Your task to perform on an android device: change the clock display to analog Image 0: 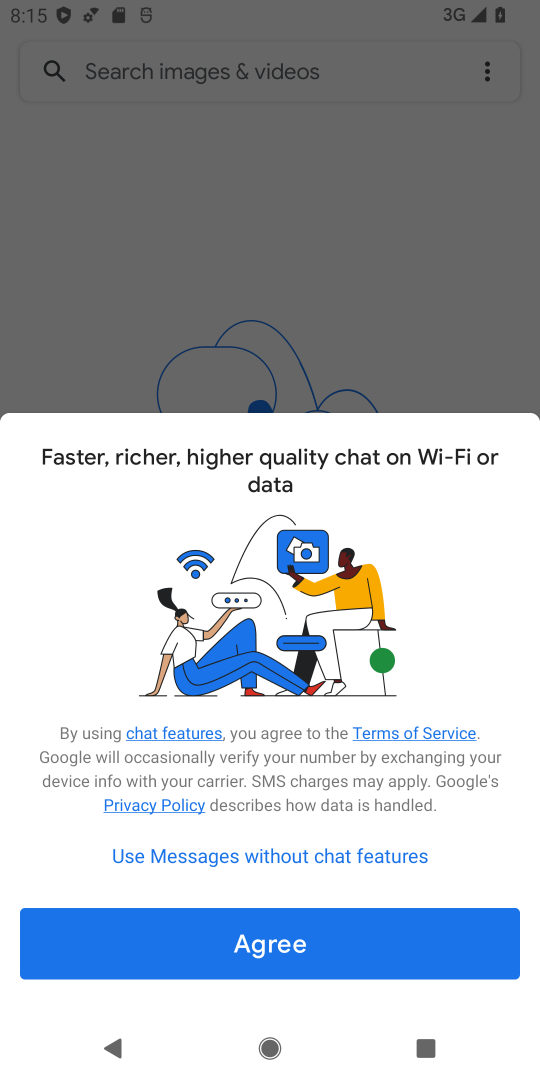
Step 0: press back button
Your task to perform on an android device: change the clock display to analog Image 1: 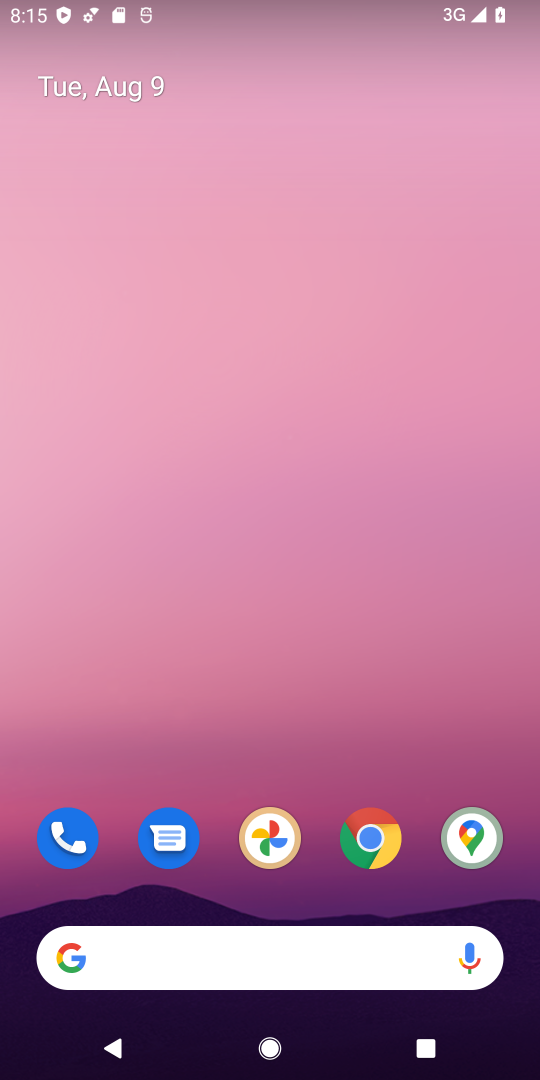
Step 1: drag from (239, 960) to (80, 4)
Your task to perform on an android device: change the clock display to analog Image 2: 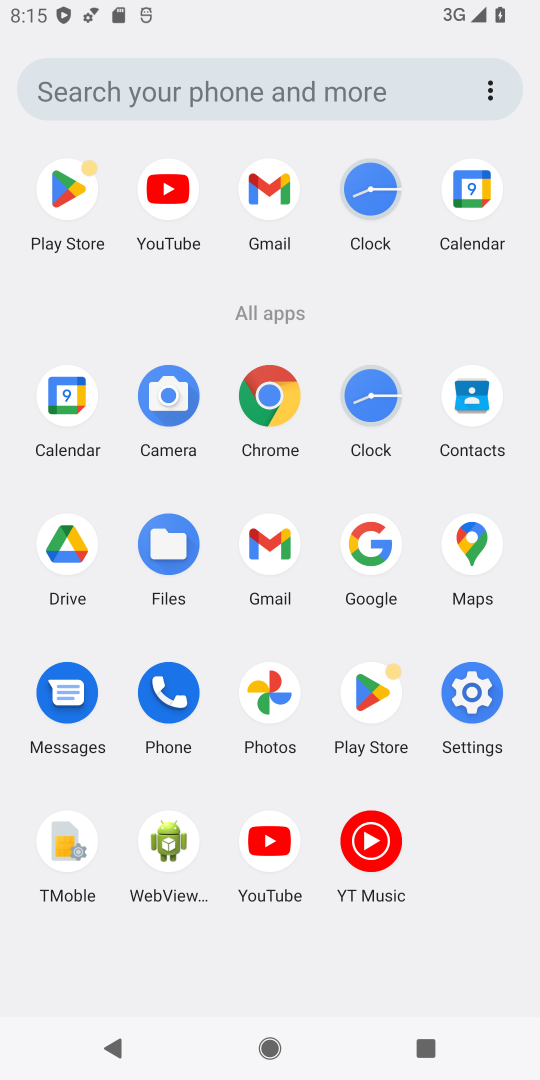
Step 2: click (373, 408)
Your task to perform on an android device: change the clock display to analog Image 3: 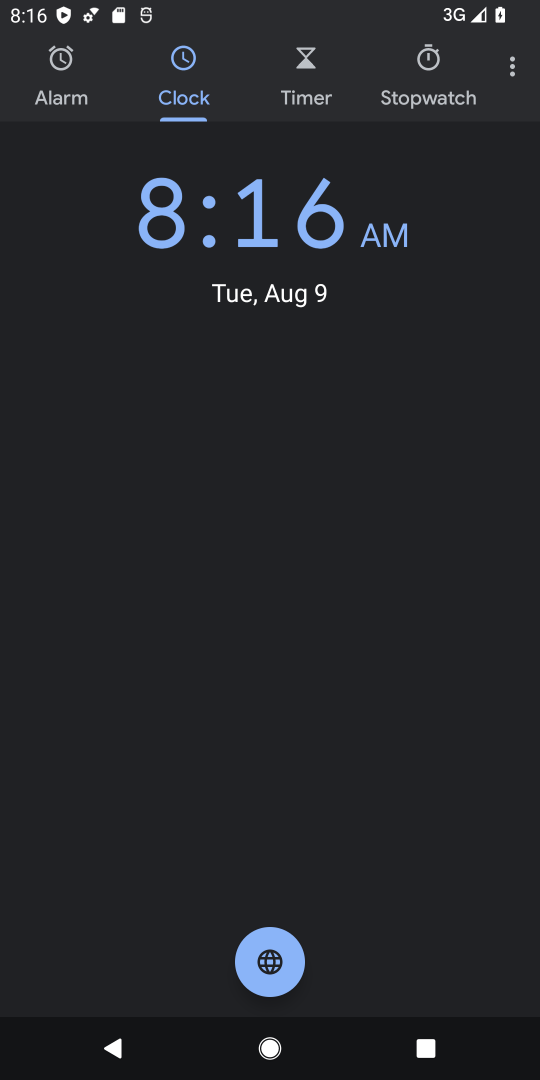
Step 3: click (507, 66)
Your task to perform on an android device: change the clock display to analog Image 4: 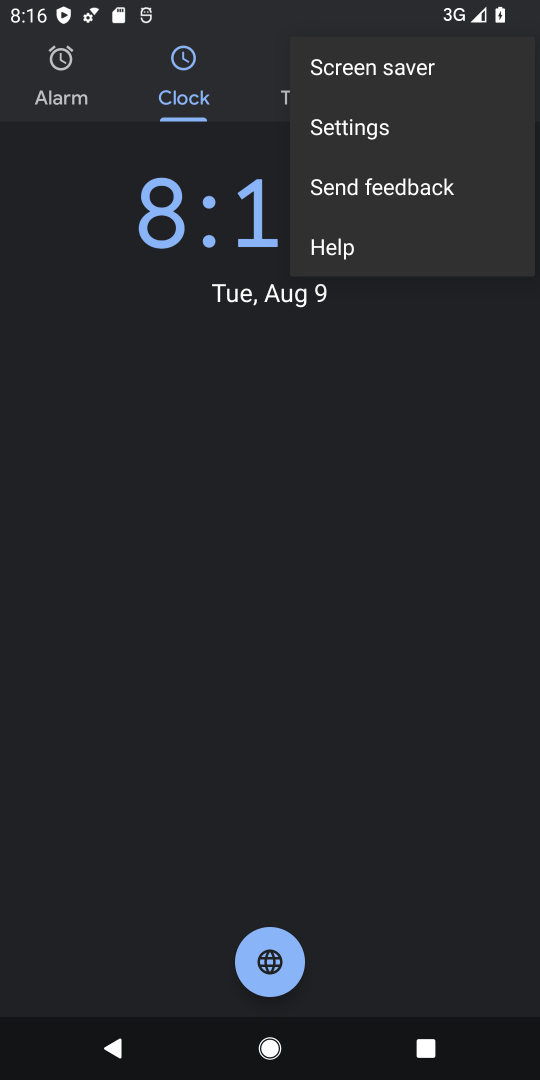
Step 4: click (361, 126)
Your task to perform on an android device: change the clock display to analog Image 5: 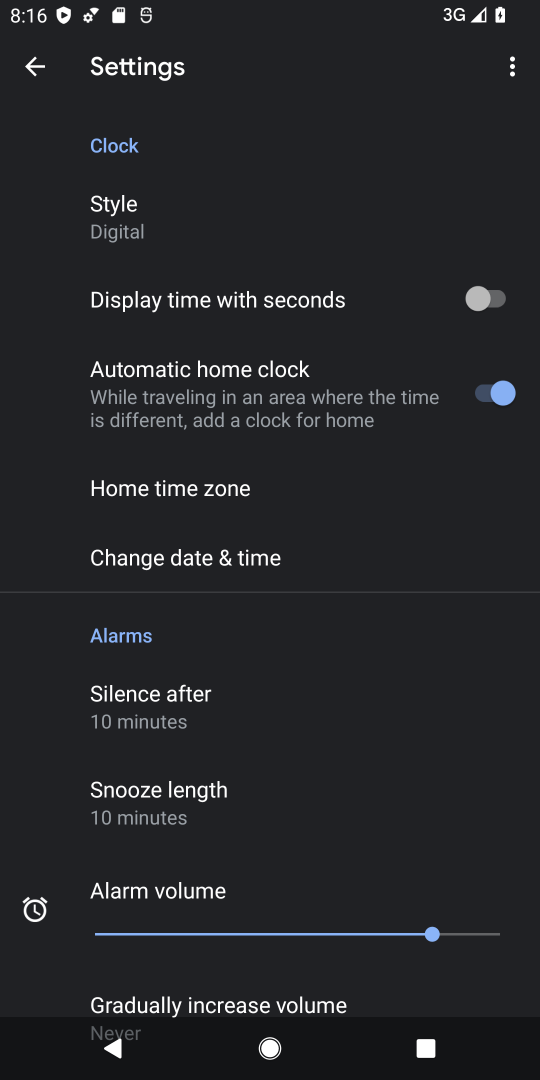
Step 5: click (149, 204)
Your task to perform on an android device: change the clock display to analog Image 6: 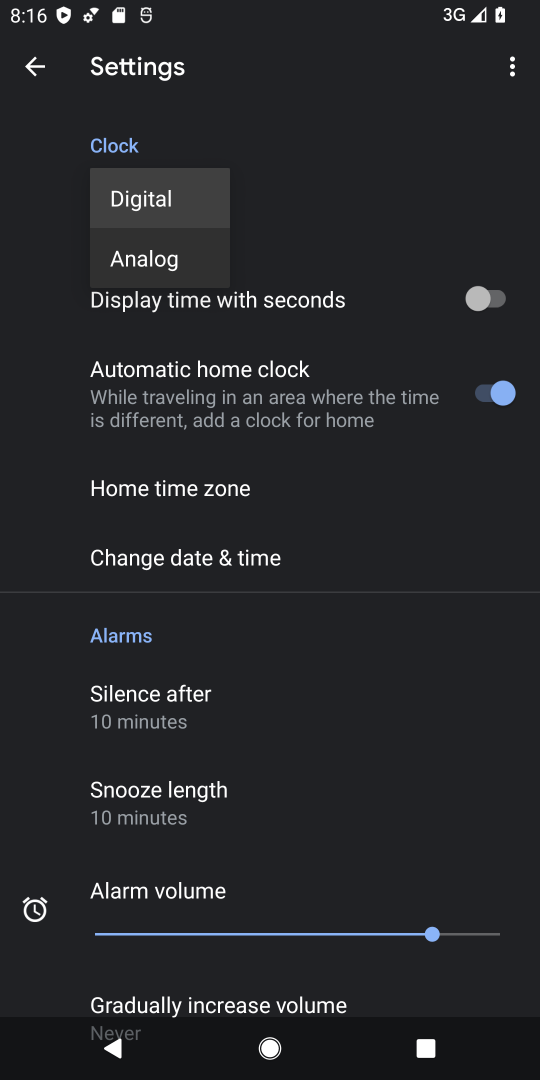
Step 6: click (179, 259)
Your task to perform on an android device: change the clock display to analog Image 7: 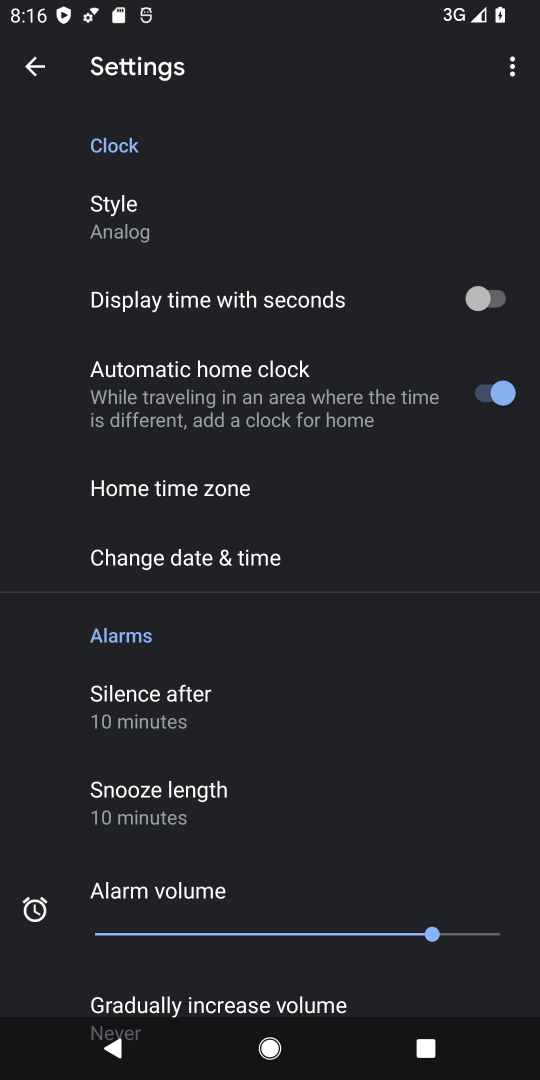
Step 7: task complete